Your task to perform on an android device: turn off sleep mode Image 0: 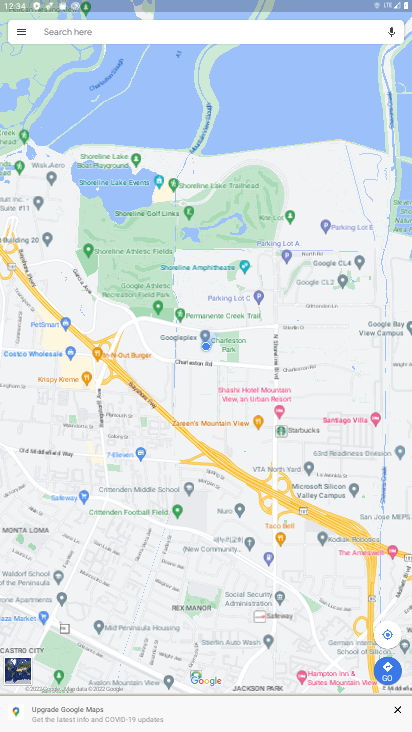
Step 0: press home button
Your task to perform on an android device: turn off sleep mode Image 1: 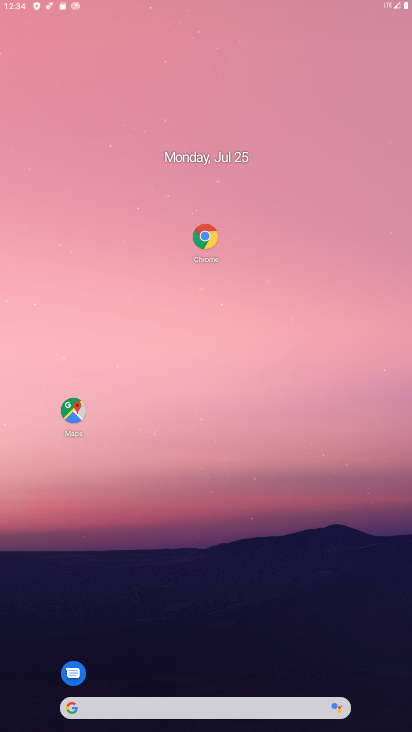
Step 1: drag from (245, 683) to (316, 18)
Your task to perform on an android device: turn off sleep mode Image 2: 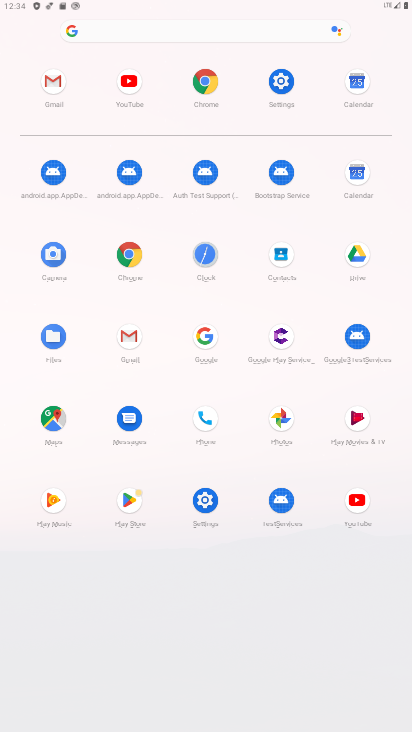
Step 2: click (284, 86)
Your task to perform on an android device: turn off sleep mode Image 3: 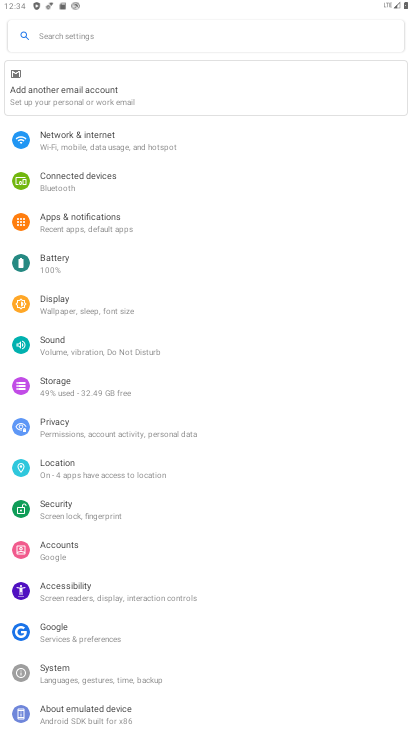
Step 3: click (92, 312)
Your task to perform on an android device: turn off sleep mode Image 4: 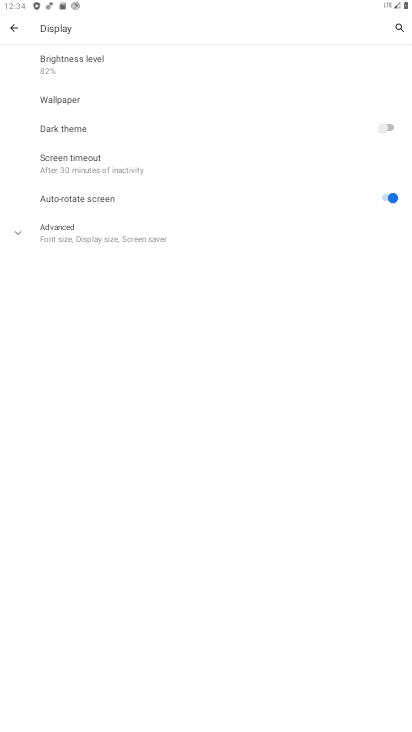
Step 4: task complete